Your task to perform on an android device: Open the map Image 0: 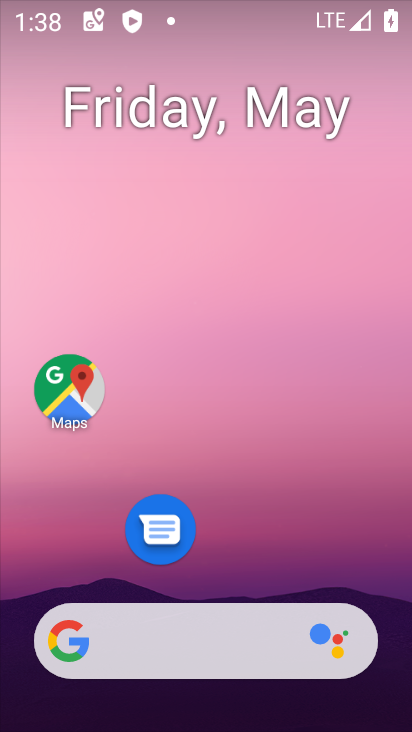
Step 0: drag from (209, 573) to (234, 193)
Your task to perform on an android device: Open the map Image 1: 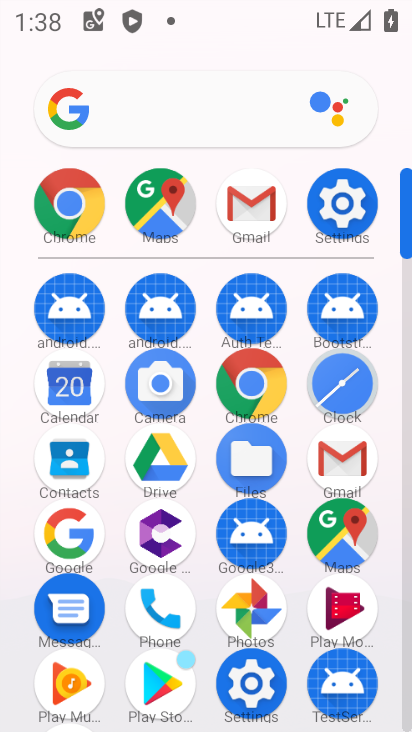
Step 1: click (338, 536)
Your task to perform on an android device: Open the map Image 2: 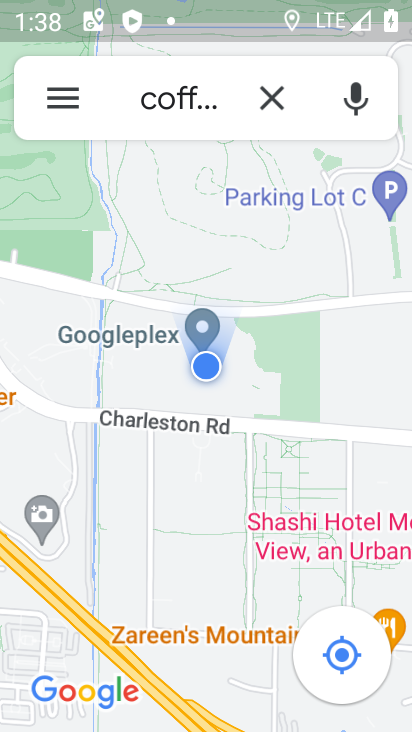
Step 2: click (273, 99)
Your task to perform on an android device: Open the map Image 3: 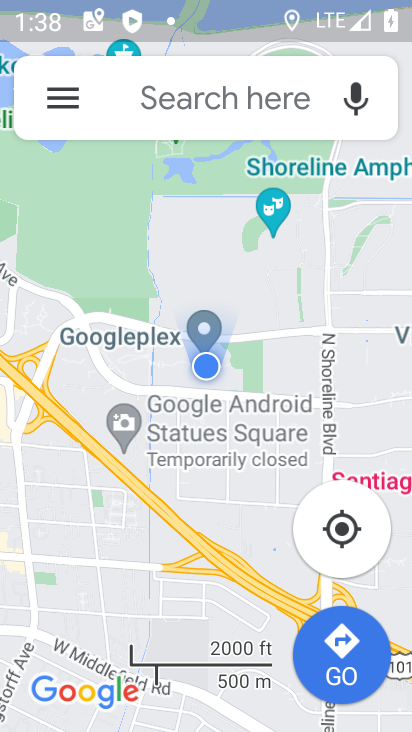
Step 3: click (211, 97)
Your task to perform on an android device: Open the map Image 4: 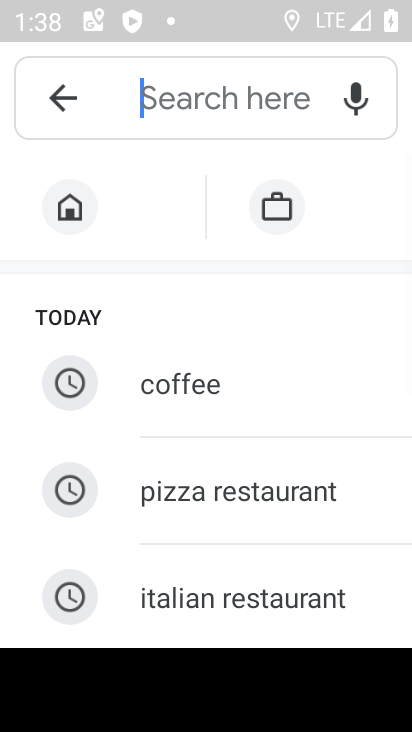
Step 4: click (41, 80)
Your task to perform on an android device: Open the map Image 5: 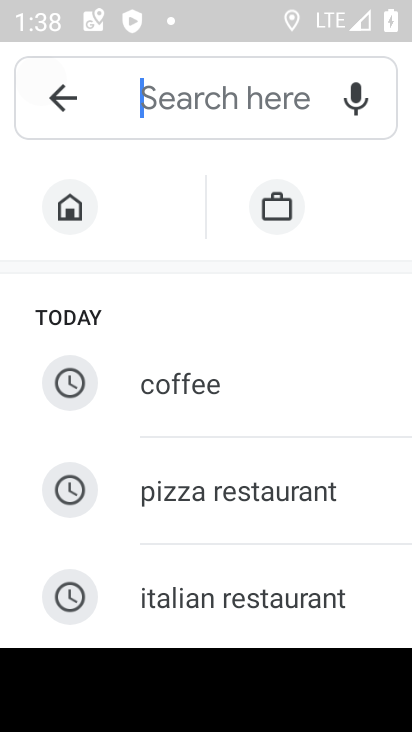
Step 5: click (55, 84)
Your task to perform on an android device: Open the map Image 6: 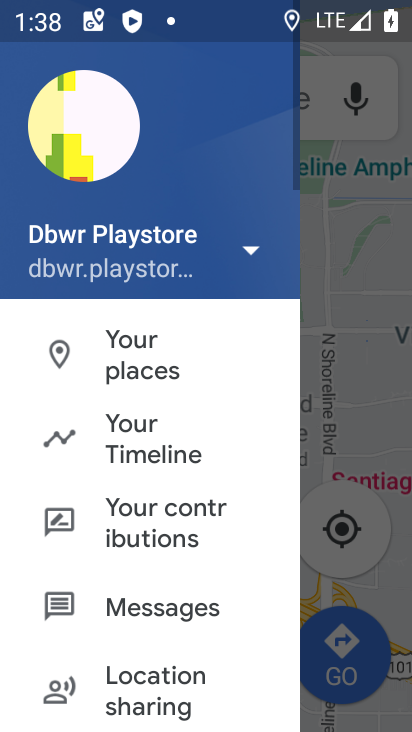
Step 6: task complete